Your task to perform on an android device: install app "YouTube Kids" Image 0: 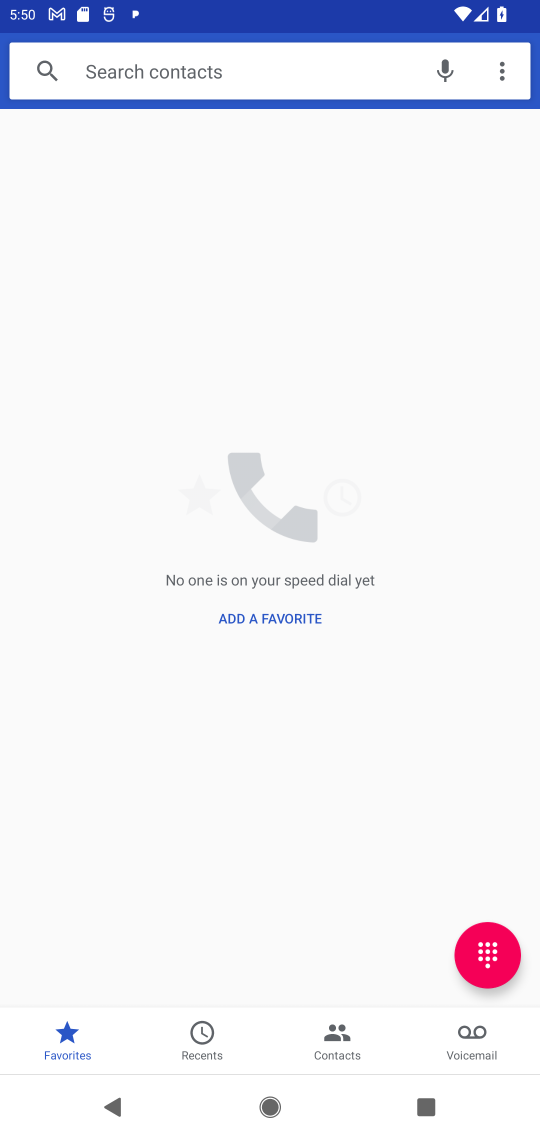
Step 0: press home button
Your task to perform on an android device: install app "YouTube Kids" Image 1: 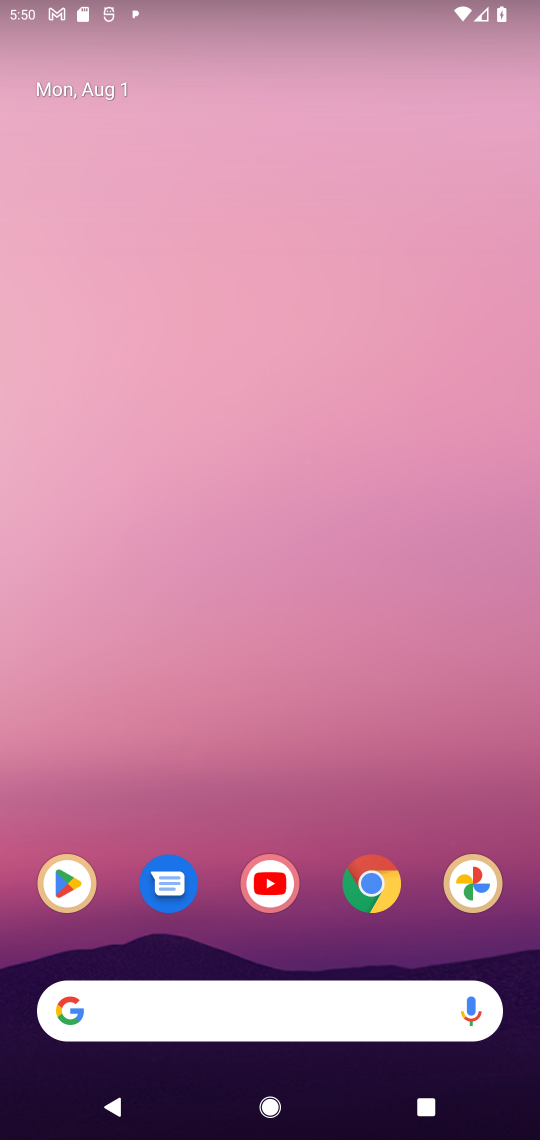
Step 1: drag from (180, 832) to (212, 13)
Your task to perform on an android device: install app "YouTube Kids" Image 2: 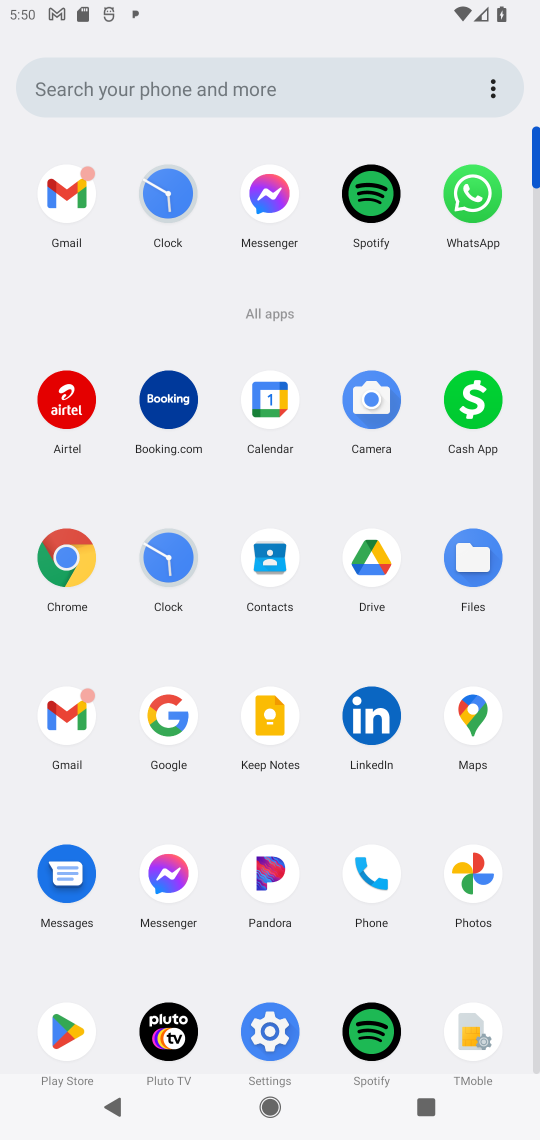
Step 2: click (62, 872)
Your task to perform on an android device: install app "YouTube Kids" Image 3: 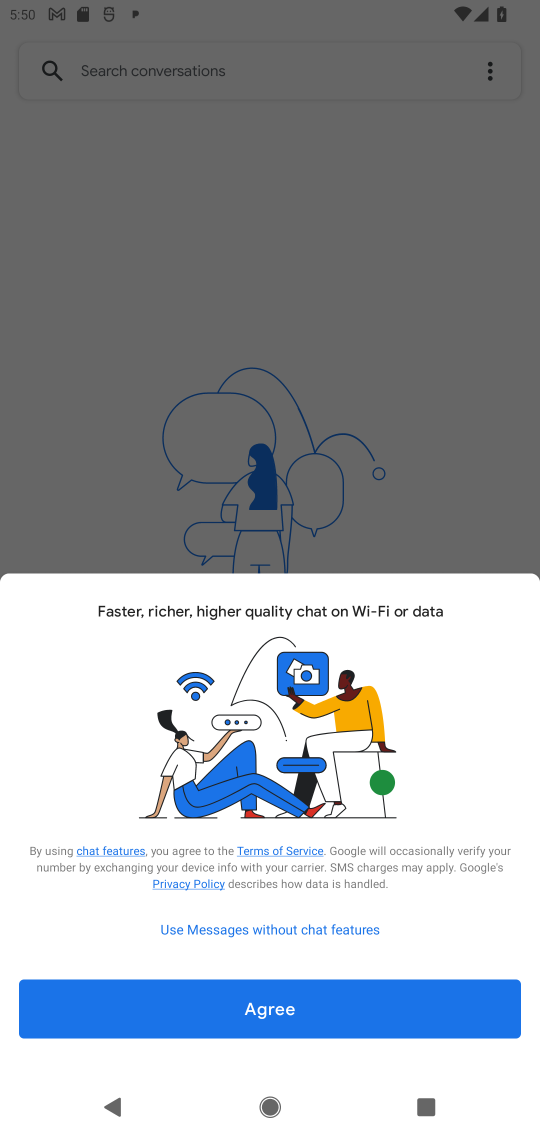
Step 3: press back button
Your task to perform on an android device: install app "YouTube Kids" Image 4: 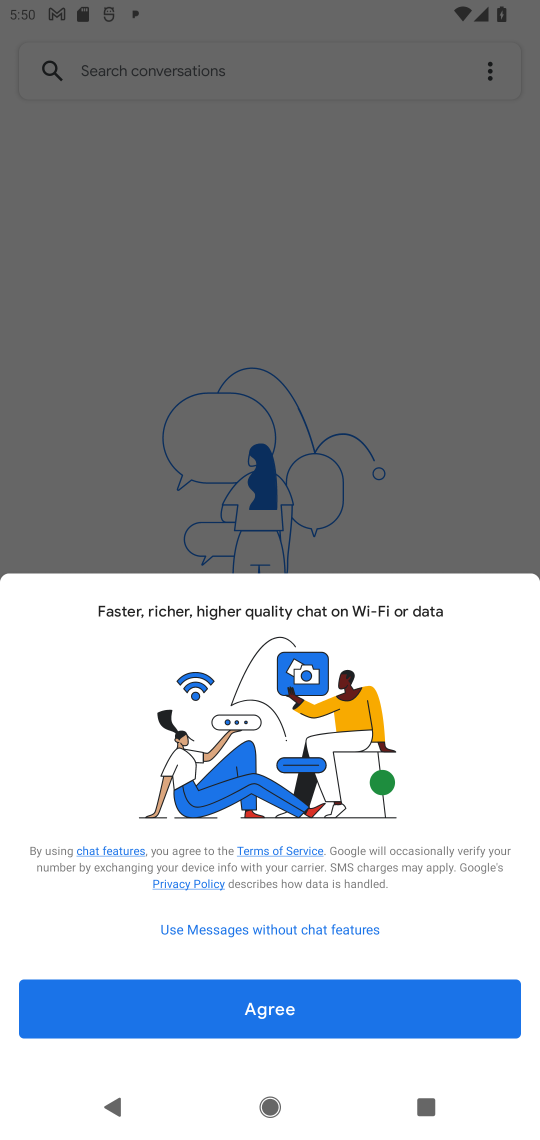
Step 4: press back button
Your task to perform on an android device: install app "YouTube Kids" Image 5: 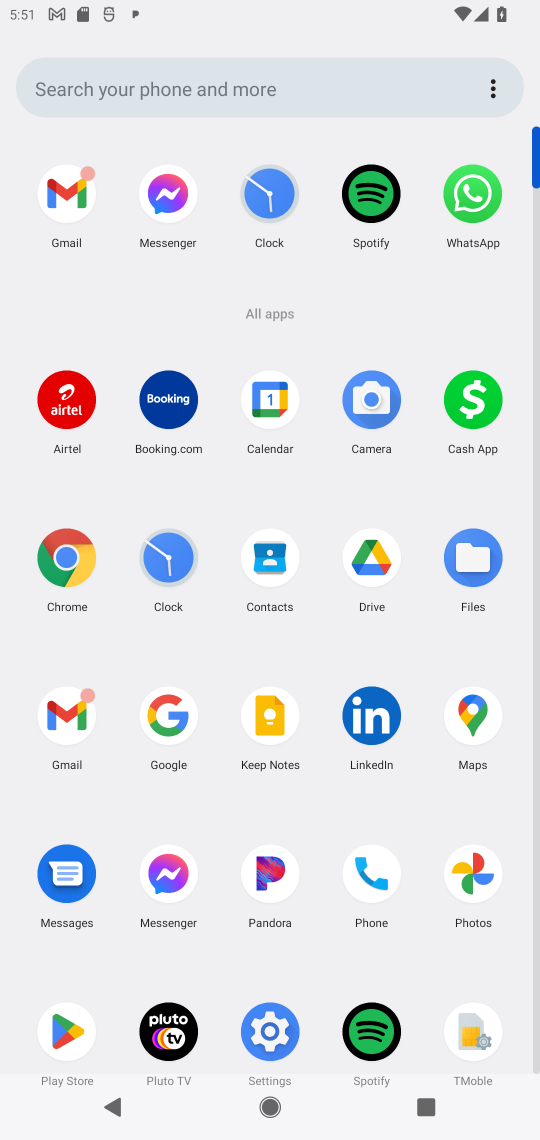
Step 5: click (60, 1038)
Your task to perform on an android device: install app "YouTube Kids" Image 6: 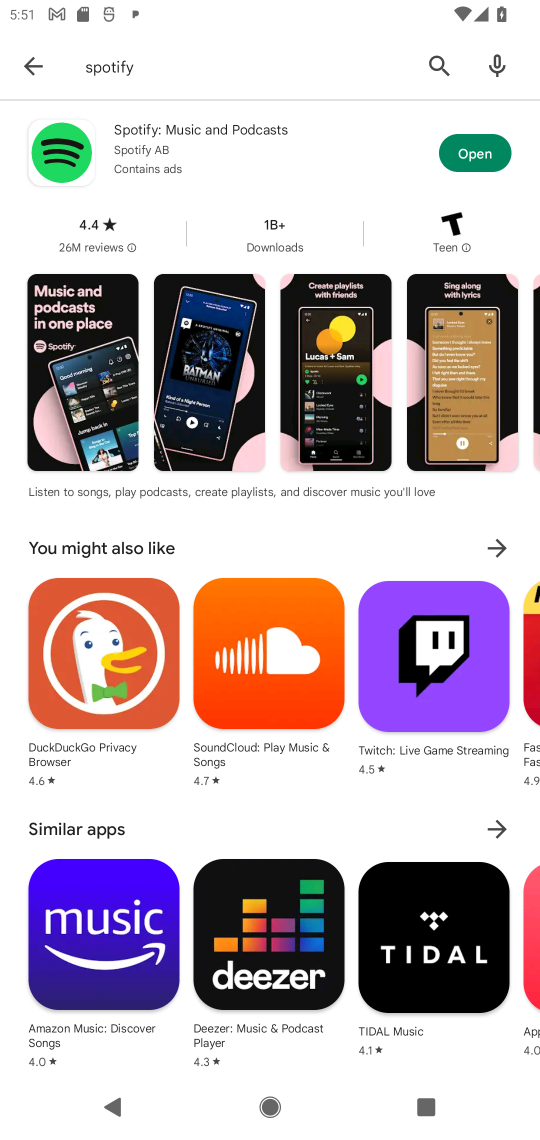
Step 6: click (29, 53)
Your task to perform on an android device: install app "YouTube Kids" Image 7: 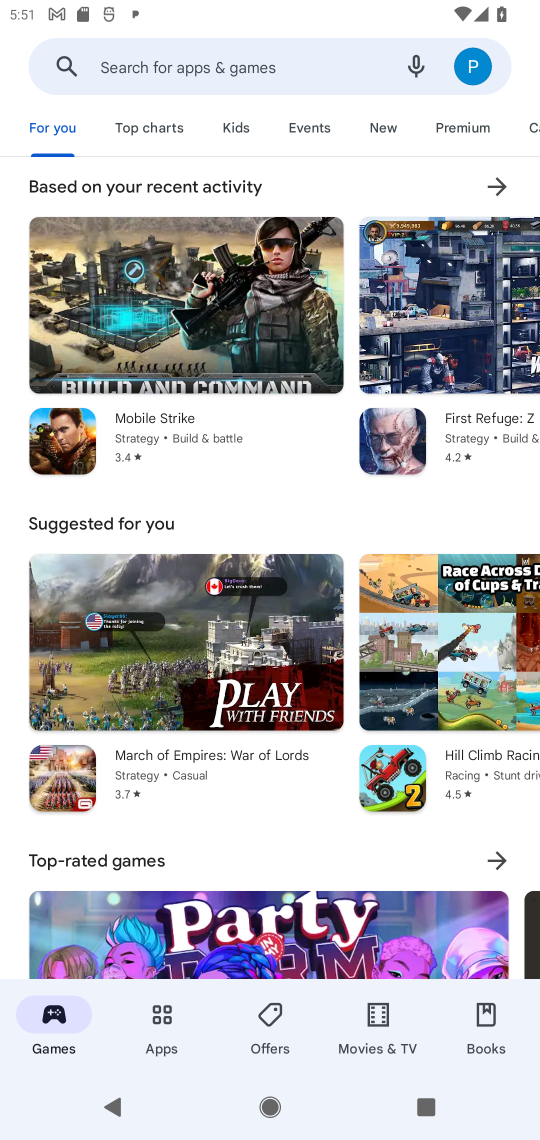
Step 7: click (169, 57)
Your task to perform on an android device: install app "YouTube Kids" Image 8: 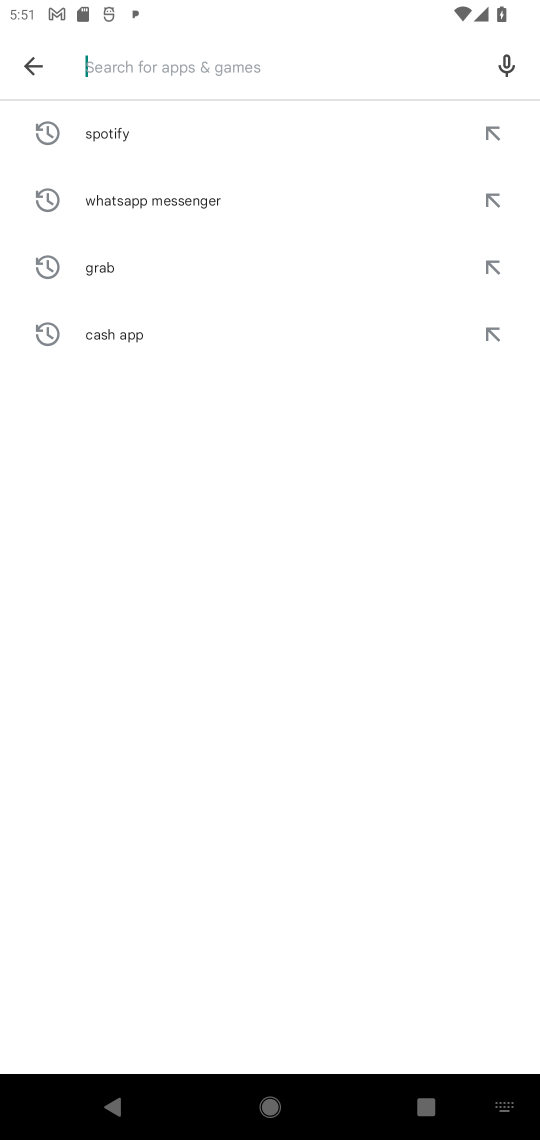
Step 8: type "YouTube Kids"
Your task to perform on an android device: install app "YouTube Kids" Image 9: 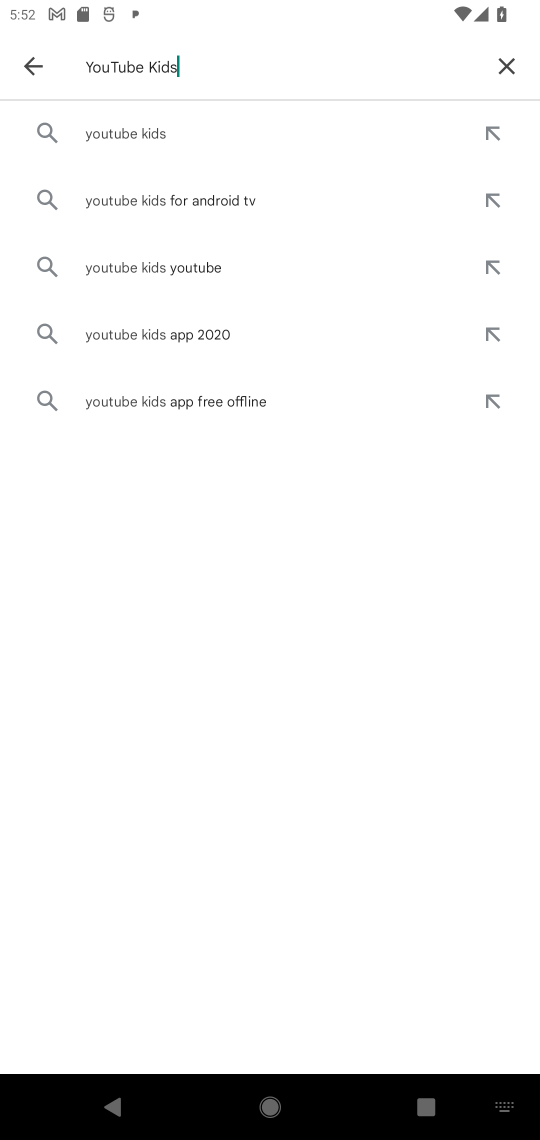
Step 9: click (144, 133)
Your task to perform on an android device: install app "YouTube Kids" Image 10: 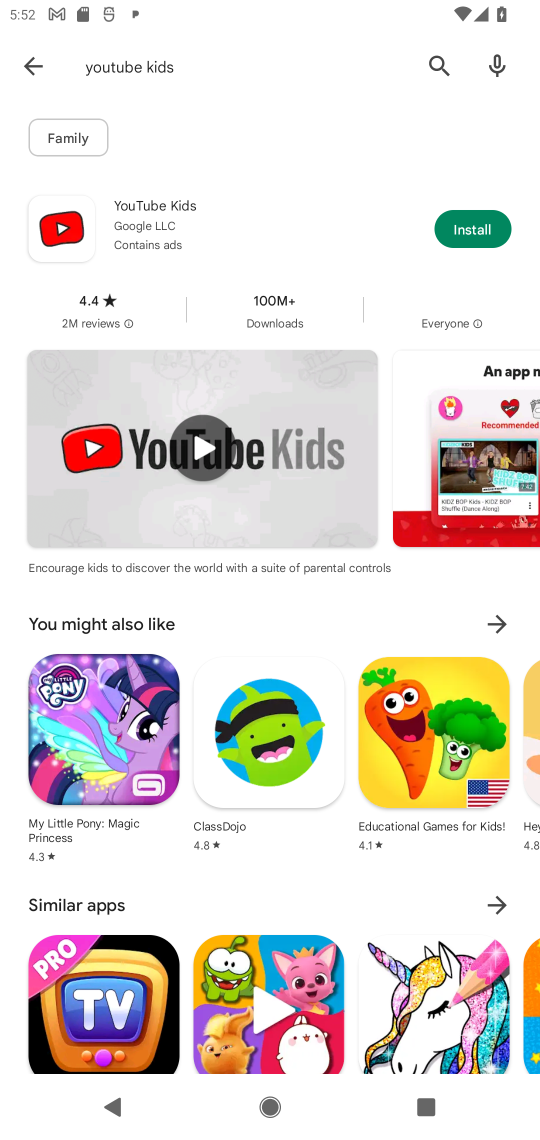
Step 10: click (474, 225)
Your task to perform on an android device: install app "YouTube Kids" Image 11: 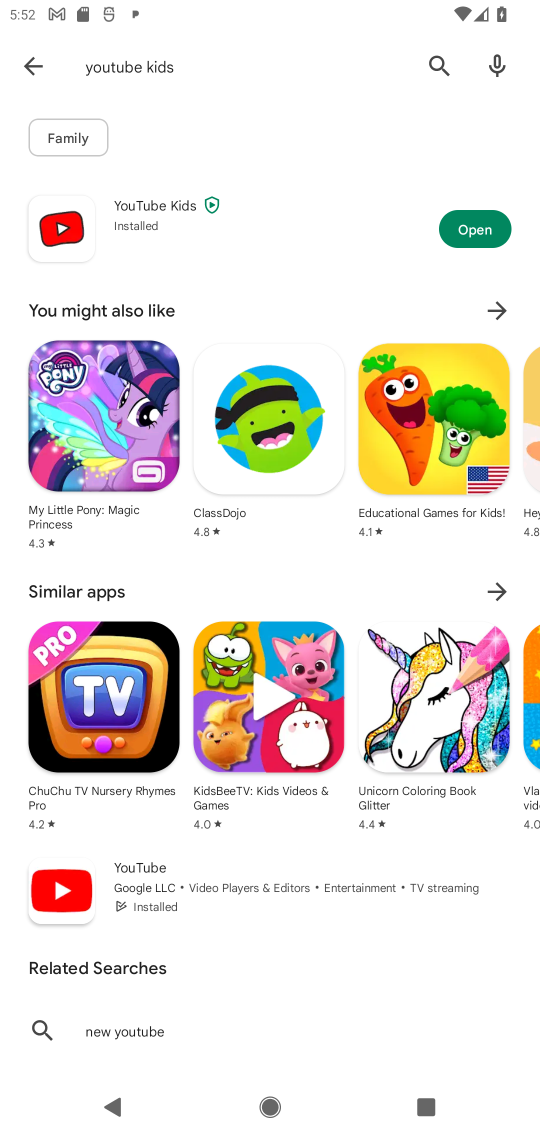
Step 11: click (478, 230)
Your task to perform on an android device: install app "YouTube Kids" Image 12: 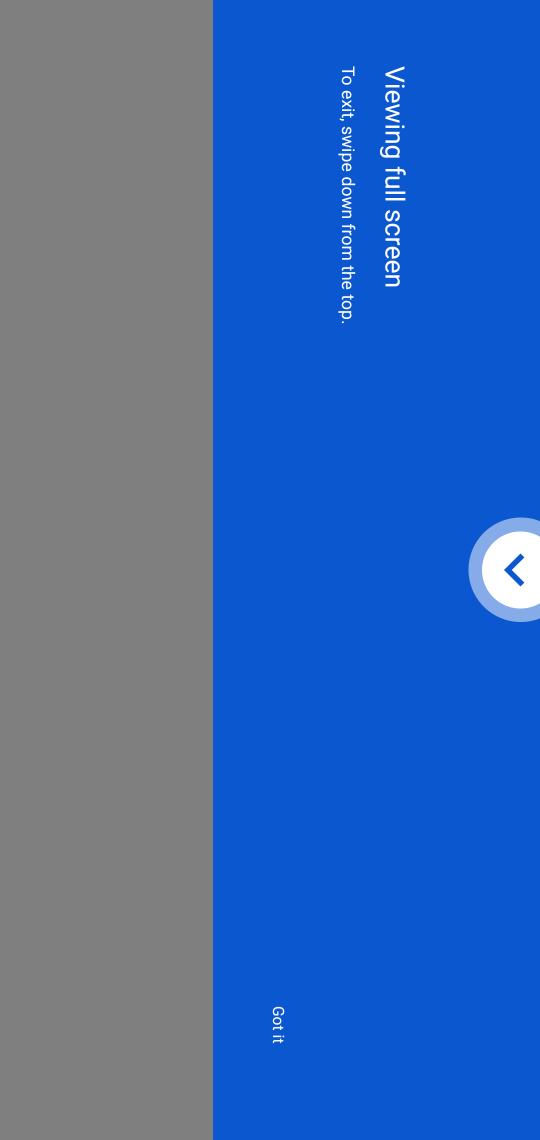
Step 12: task complete